Your task to perform on an android device: add a label to a message in the gmail app Image 0: 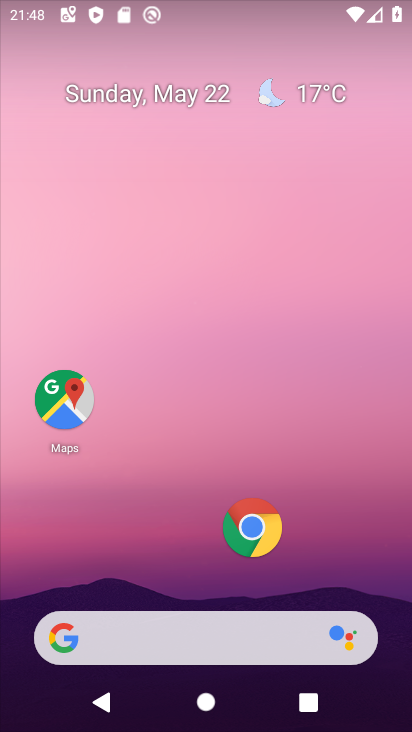
Step 0: drag from (177, 551) to (95, 12)
Your task to perform on an android device: add a label to a message in the gmail app Image 1: 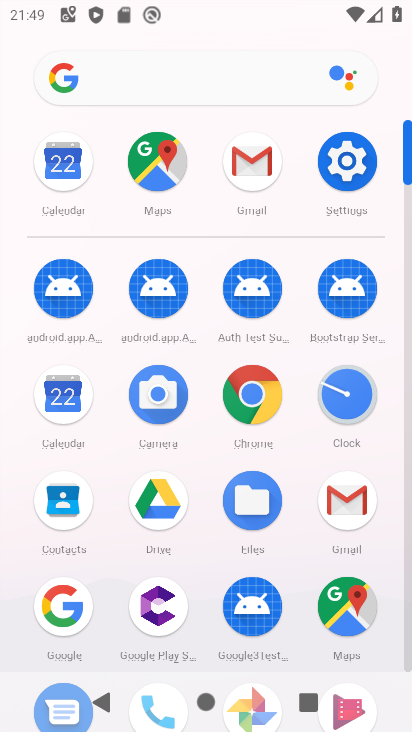
Step 1: click (251, 164)
Your task to perform on an android device: add a label to a message in the gmail app Image 2: 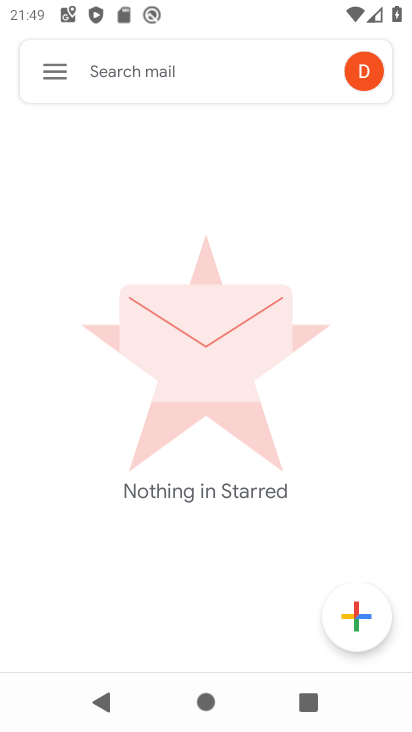
Step 2: click (53, 73)
Your task to perform on an android device: add a label to a message in the gmail app Image 3: 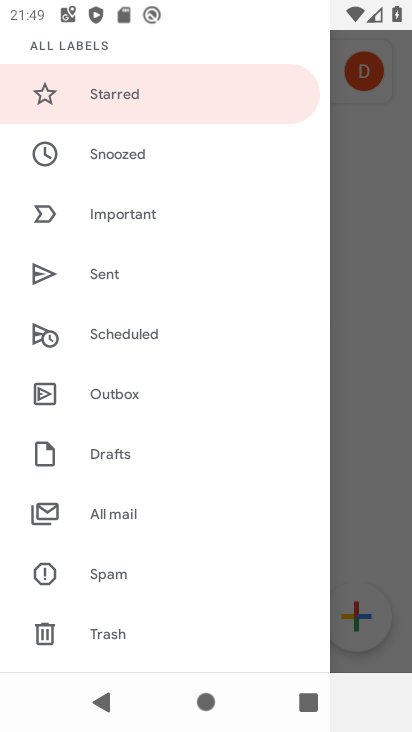
Step 3: click (118, 512)
Your task to perform on an android device: add a label to a message in the gmail app Image 4: 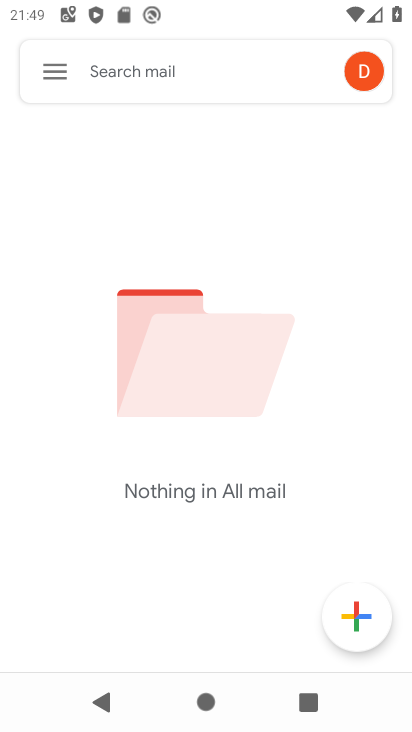
Step 4: task complete